Your task to perform on an android device: move an email to a new category in the gmail app Image 0: 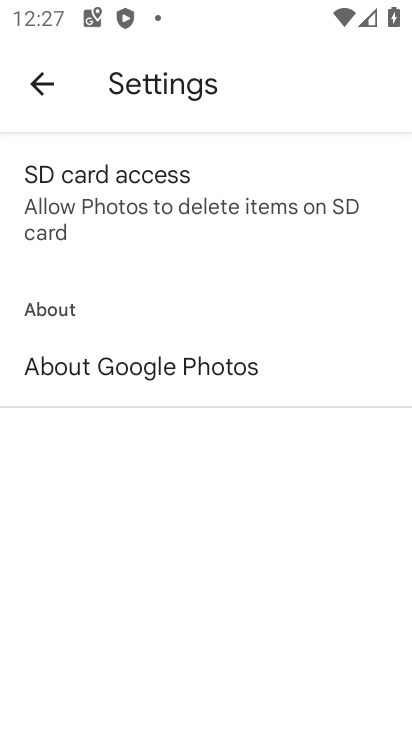
Step 0: press home button
Your task to perform on an android device: move an email to a new category in the gmail app Image 1: 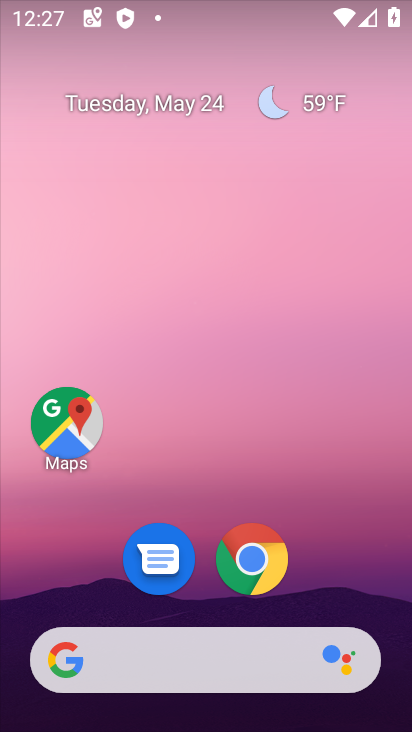
Step 1: drag from (395, 696) to (308, 284)
Your task to perform on an android device: move an email to a new category in the gmail app Image 2: 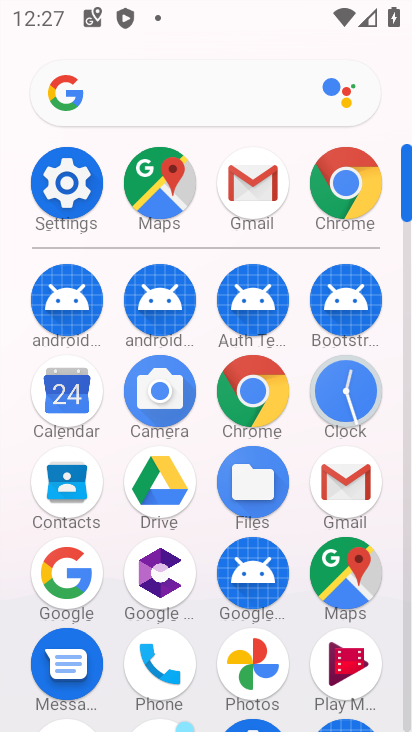
Step 2: click (252, 194)
Your task to perform on an android device: move an email to a new category in the gmail app Image 3: 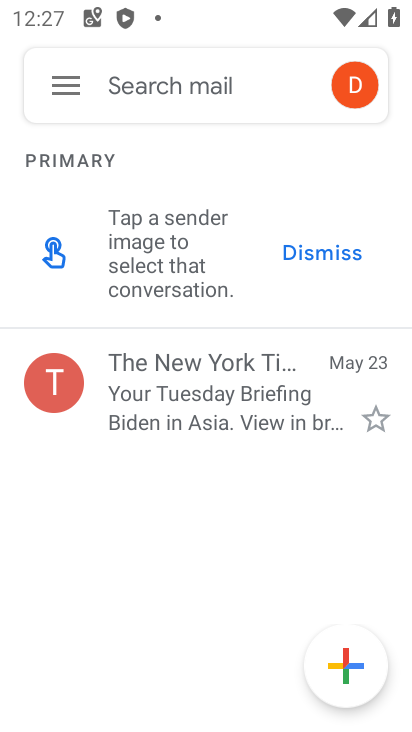
Step 3: click (63, 73)
Your task to perform on an android device: move an email to a new category in the gmail app Image 4: 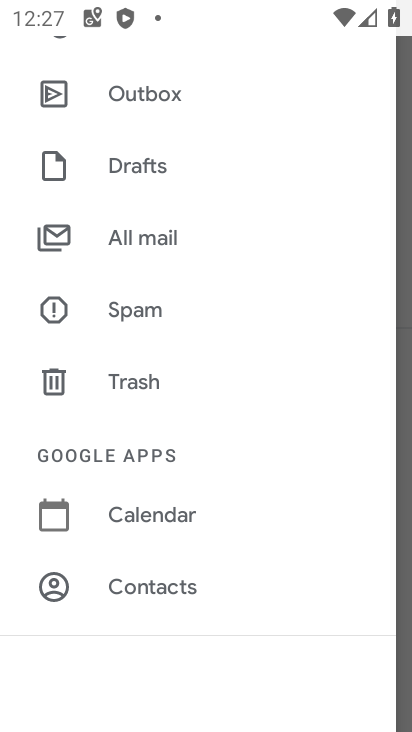
Step 4: drag from (225, 107) to (257, 697)
Your task to perform on an android device: move an email to a new category in the gmail app Image 5: 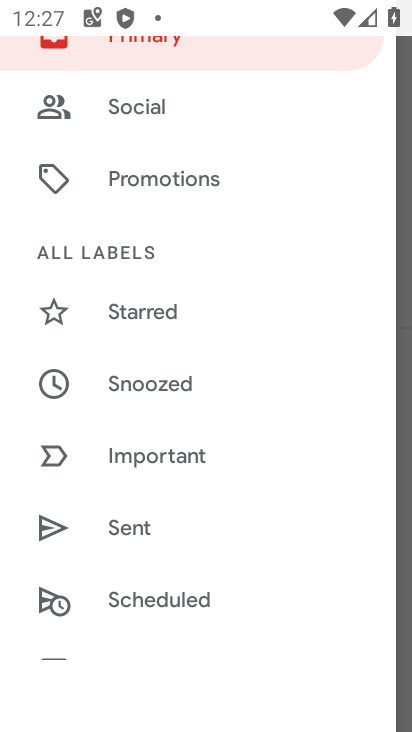
Step 5: click (154, 37)
Your task to perform on an android device: move an email to a new category in the gmail app Image 6: 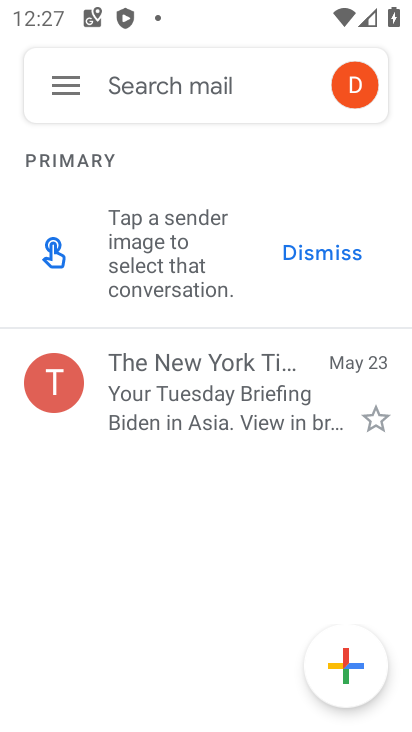
Step 6: click (374, 420)
Your task to perform on an android device: move an email to a new category in the gmail app Image 7: 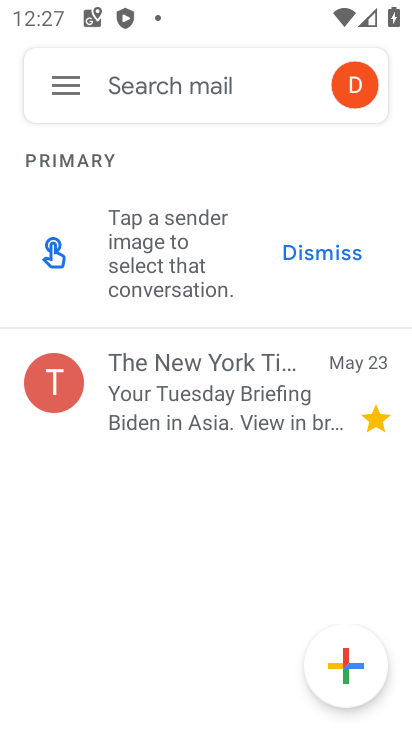
Step 7: task complete